Your task to perform on an android device: delete the emails in spam in the gmail app Image 0: 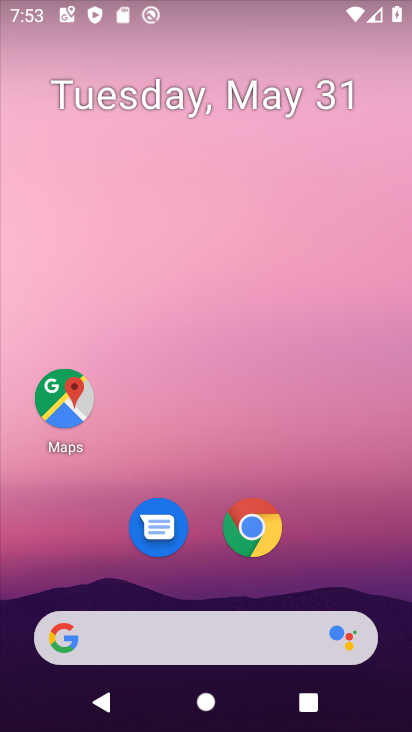
Step 0: drag from (318, 543) to (269, 79)
Your task to perform on an android device: delete the emails in spam in the gmail app Image 1: 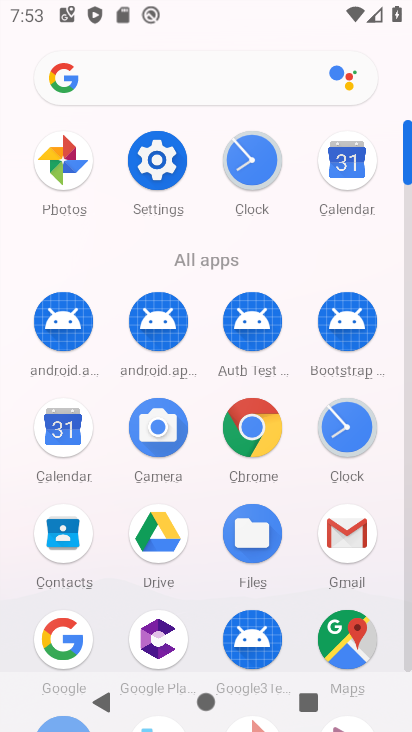
Step 1: click (348, 533)
Your task to perform on an android device: delete the emails in spam in the gmail app Image 2: 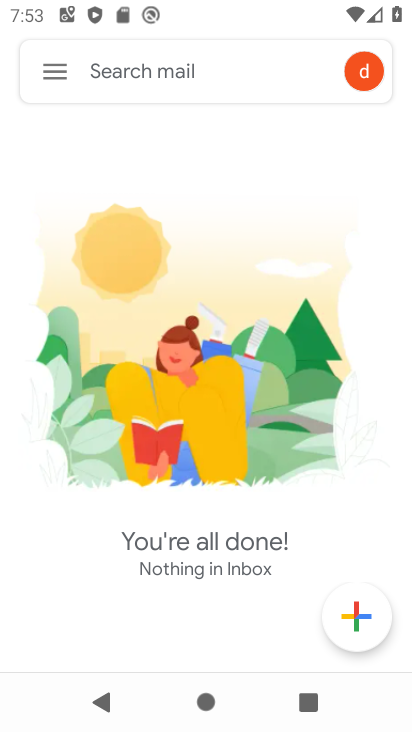
Step 2: click (56, 72)
Your task to perform on an android device: delete the emails in spam in the gmail app Image 3: 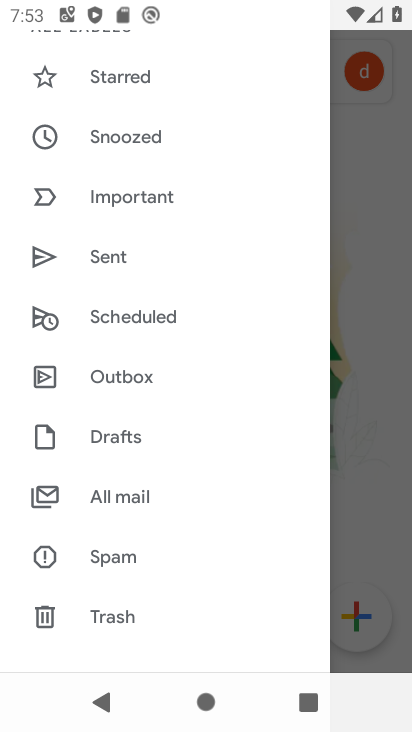
Step 3: drag from (175, 543) to (161, 291)
Your task to perform on an android device: delete the emails in spam in the gmail app Image 4: 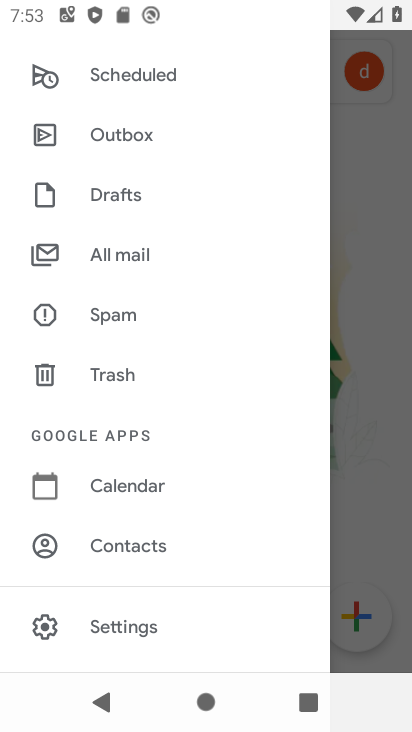
Step 4: click (111, 314)
Your task to perform on an android device: delete the emails in spam in the gmail app Image 5: 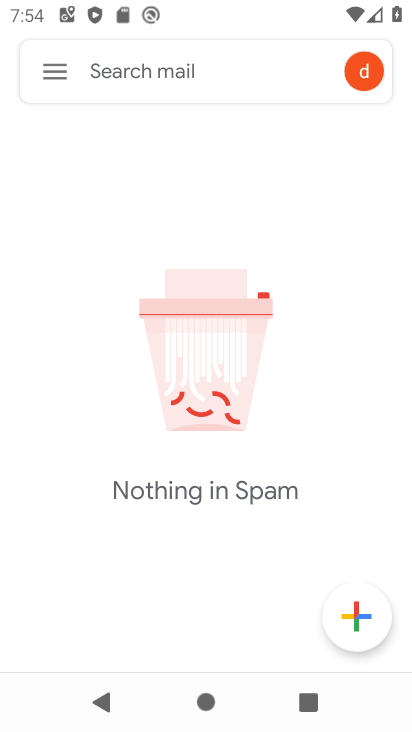
Step 5: task complete